Your task to perform on an android device: Go to notification settings Image 0: 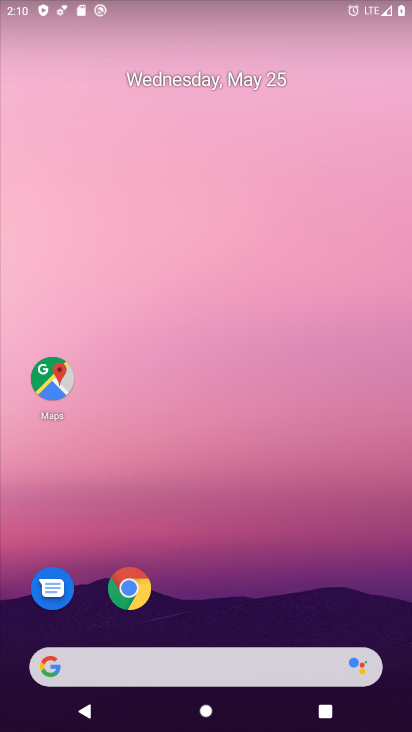
Step 0: drag from (233, 502) to (257, 69)
Your task to perform on an android device: Go to notification settings Image 1: 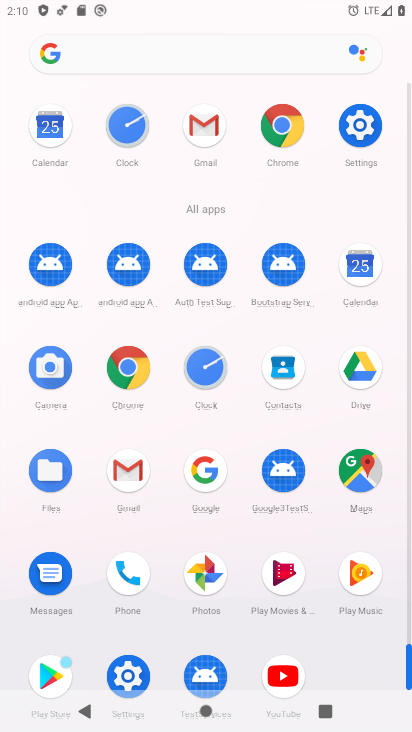
Step 1: drag from (18, 516) to (13, 191)
Your task to perform on an android device: Go to notification settings Image 2: 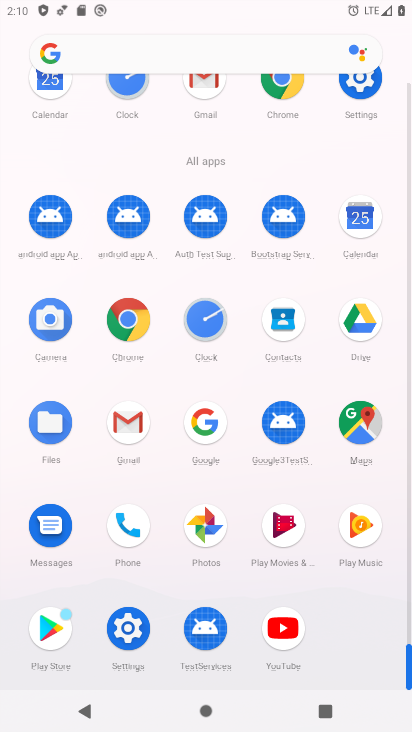
Step 2: click (124, 624)
Your task to perform on an android device: Go to notification settings Image 3: 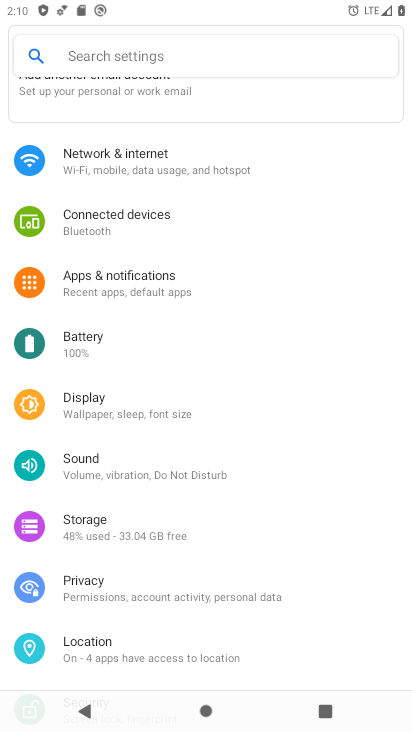
Step 3: drag from (198, 428) to (215, 202)
Your task to perform on an android device: Go to notification settings Image 4: 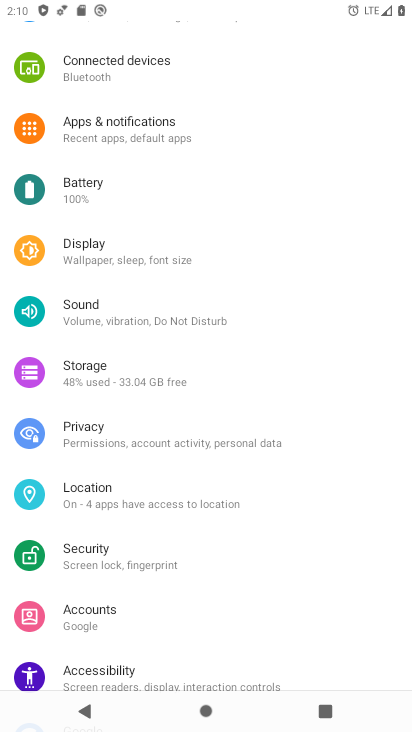
Step 4: click (154, 118)
Your task to perform on an android device: Go to notification settings Image 5: 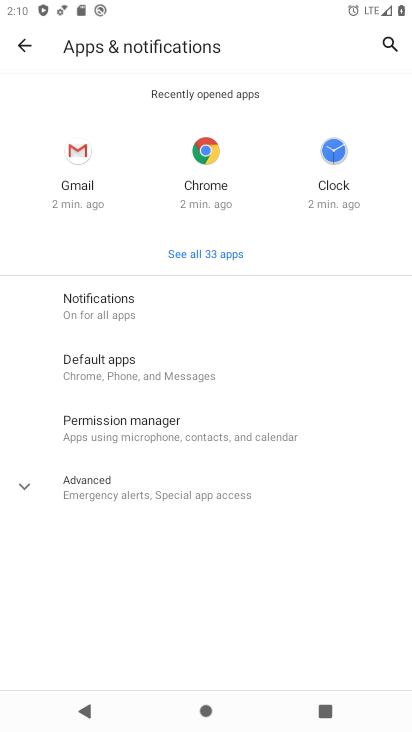
Step 5: click (19, 485)
Your task to perform on an android device: Go to notification settings Image 6: 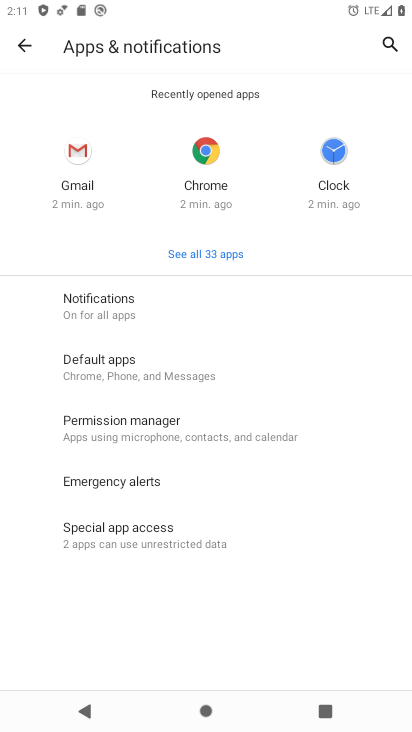
Step 6: click (106, 311)
Your task to perform on an android device: Go to notification settings Image 7: 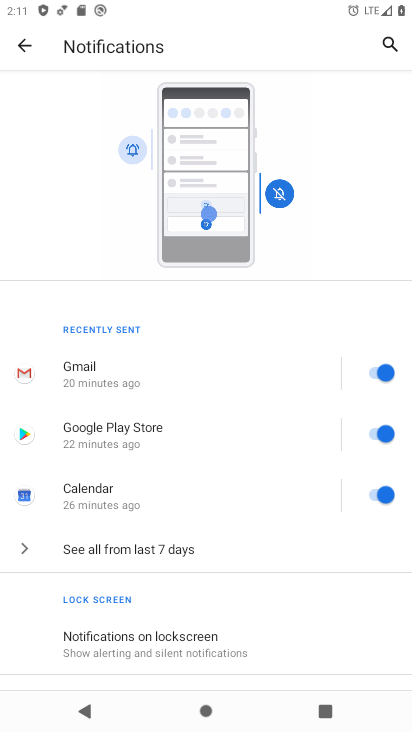
Step 7: drag from (247, 601) to (276, 191)
Your task to perform on an android device: Go to notification settings Image 8: 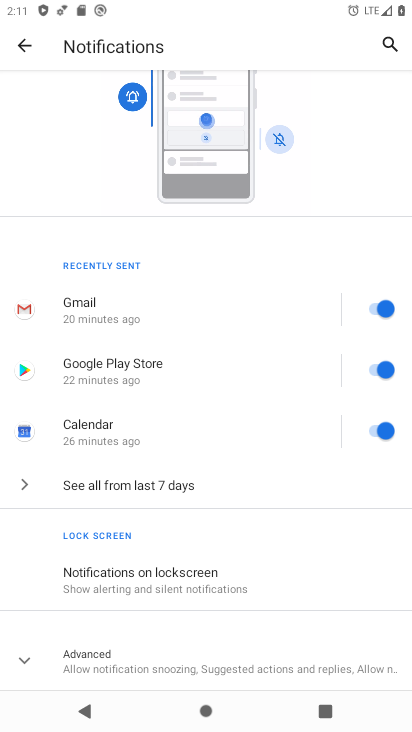
Step 8: drag from (211, 585) to (233, 144)
Your task to perform on an android device: Go to notification settings Image 9: 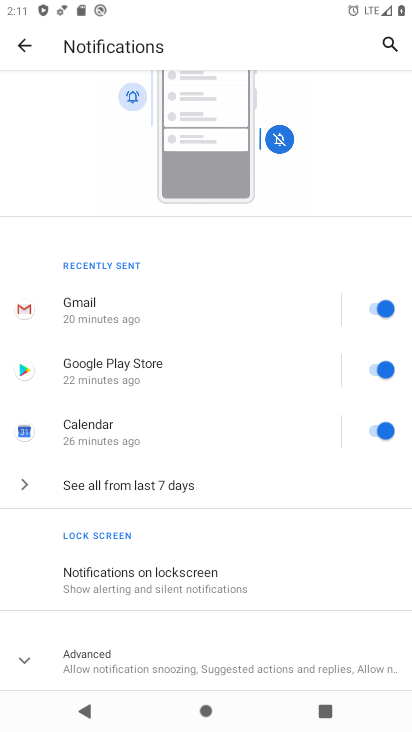
Step 9: click (22, 667)
Your task to perform on an android device: Go to notification settings Image 10: 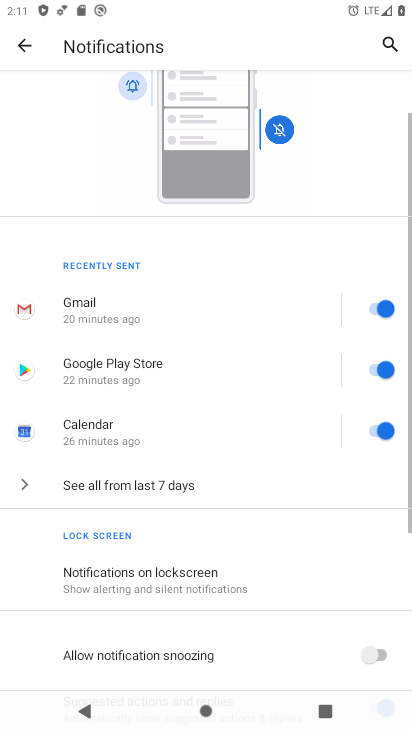
Step 10: task complete